Your task to perform on an android device: check battery use Image 0: 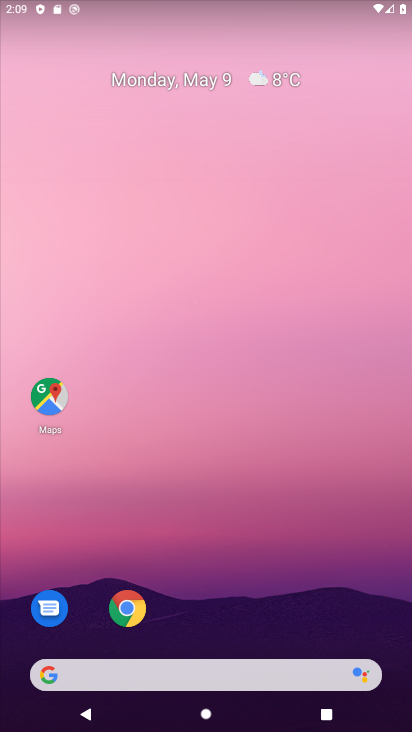
Step 0: drag from (184, 659) to (245, 256)
Your task to perform on an android device: check battery use Image 1: 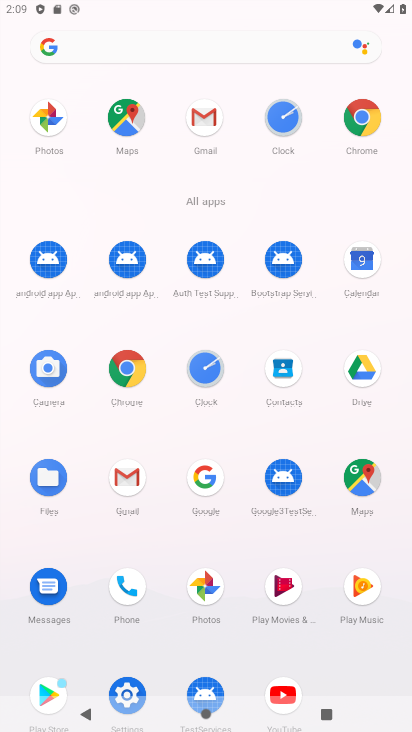
Step 1: click (116, 684)
Your task to perform on an android device: check battery use Image 2: 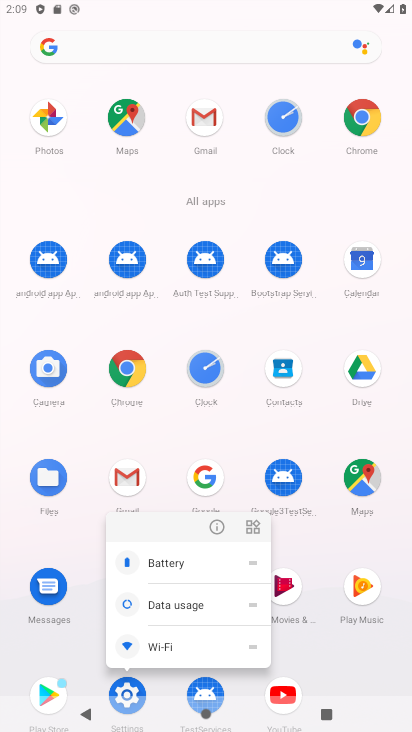
Step 2: click (118, 684)
Your task to perform on an android device: check battery use Image 3: 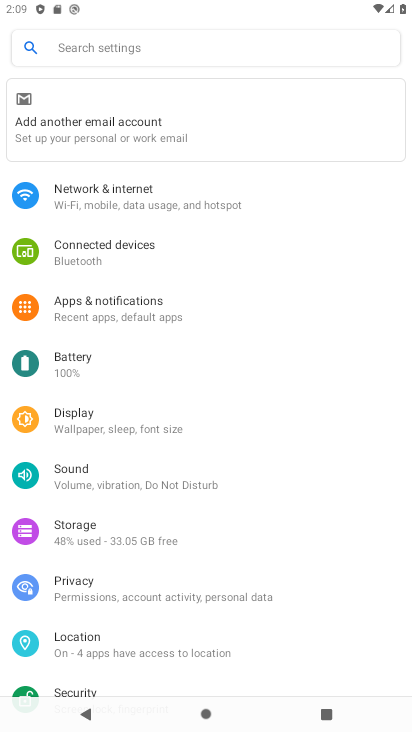
Step 3: click (85, 374)
Your task to perform on an android device: check battery use Image 4: 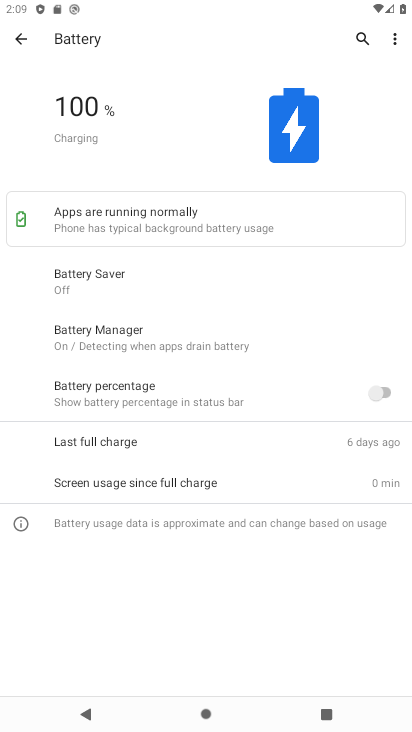
Step 4: task complete